Your task to perform on an android device: turn on notifications settings in the gmail app Image 0: 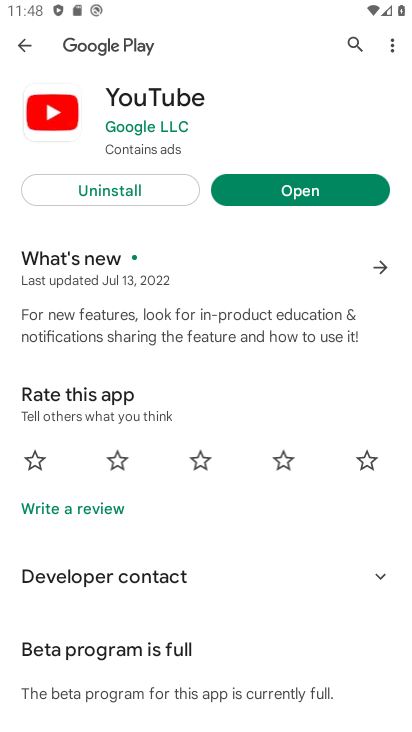
Step 0: press home button
Your task to perform on an android device: turn on notifications settings in the gmail app Image 1: 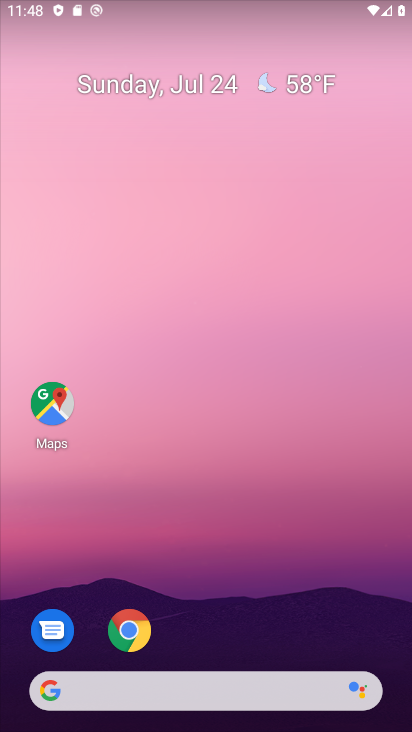
Step 1: drag from (227, 642) to (246, 29)
Your task to perform on an android device: turn on notifications settings in the gmail app Image 2: 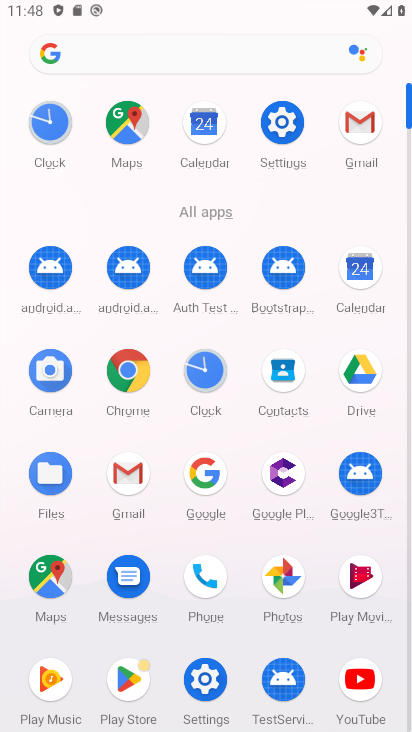
Step 2: click (362, 137)
Your task to perform on an android device: turn on notifications settings in the gmail app Image 3: 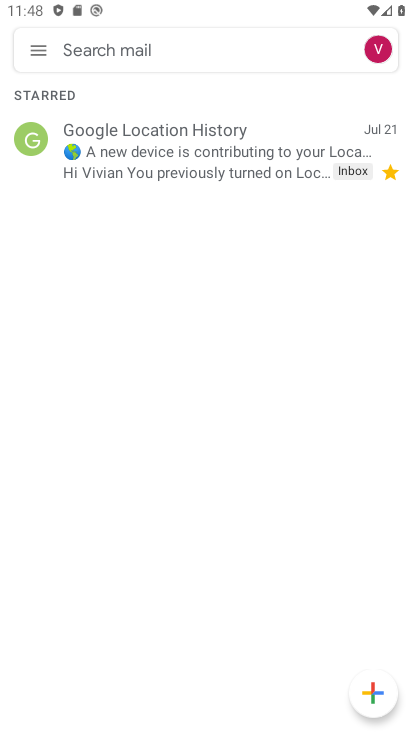
Step 3: click (32, 42)
Your task to perform on an android device: turn on notifications settings in the gmail app Image 4: 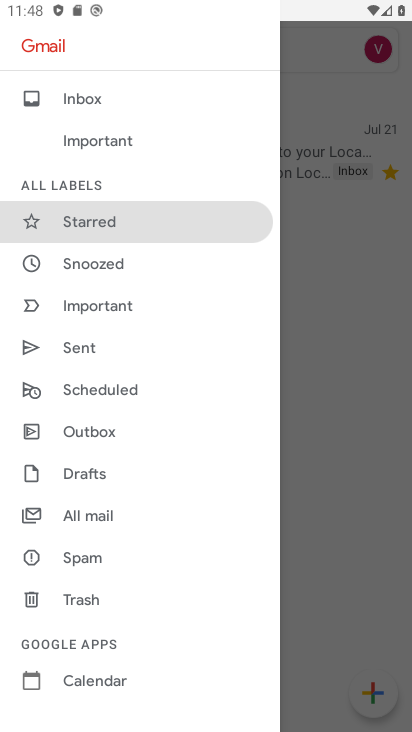
Step 4: drag from (129, 666) to (114, 86)
Your task to perform on an android device: turn on notifications settings in the gmail app Image 5: 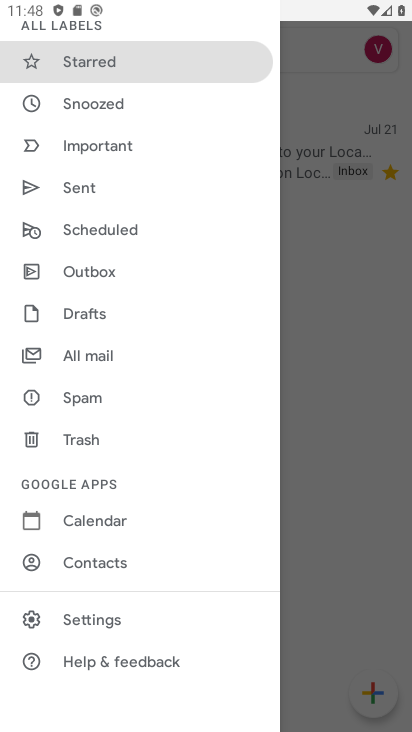
Step 5: click (117, 626)
Your task to perform on an android device: turn on notifications settings in the gmail app Image 6: 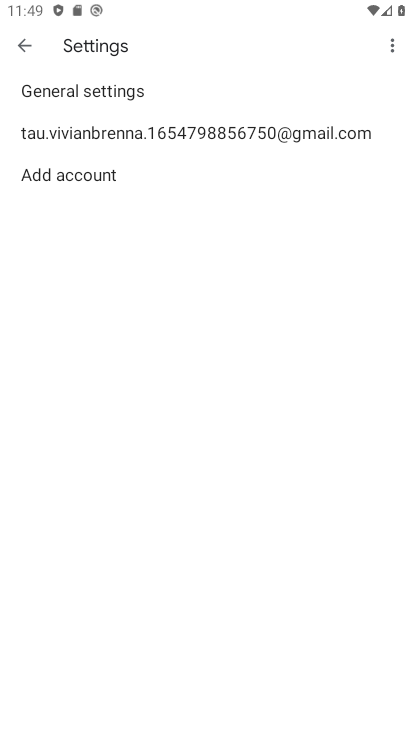
Step 6: click (215, 113)
Your task to perform on an android device: turn on notifications settings in the gmail app Image 7: 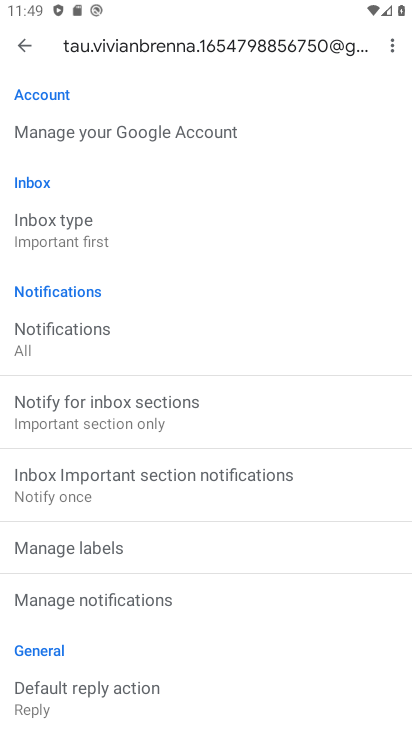
Step 7: click (165, 598)
Your task to perform on an android device: turn on notifications settings in the gmail app Image 8: 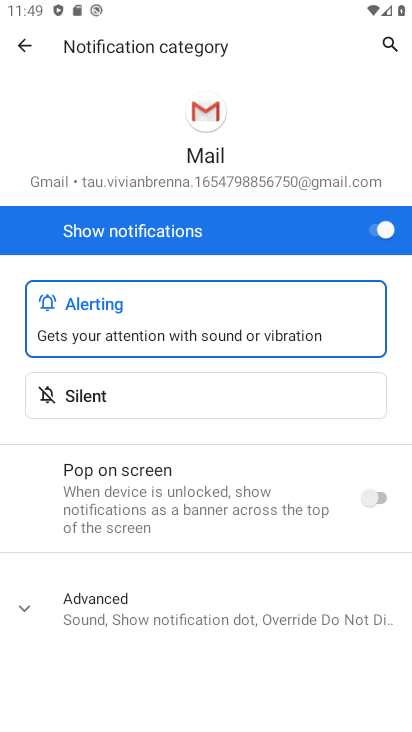
Step 8: task complete